Your task to perform on an android device: Open the map Image 0: 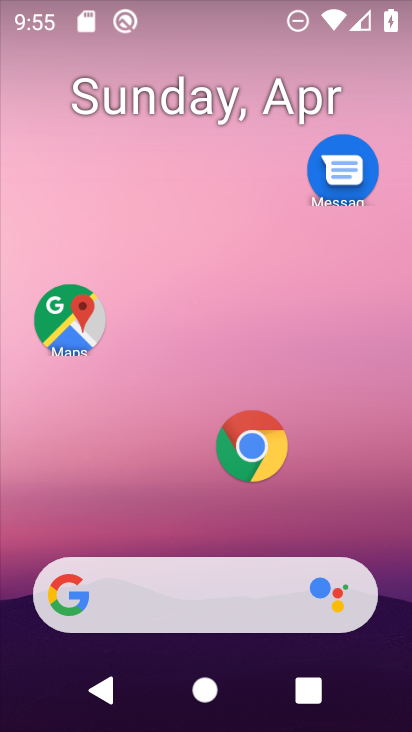
Step 0: click (214, 363)
Your task to perform on an android device: Open the map Image 1: 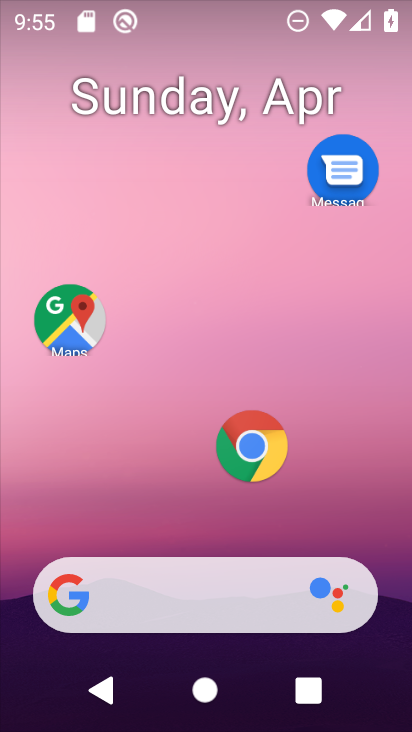
Step 1: drag from (187, 513) to (189, 104)
Your task to perform on an android device: Open the map Image 2: 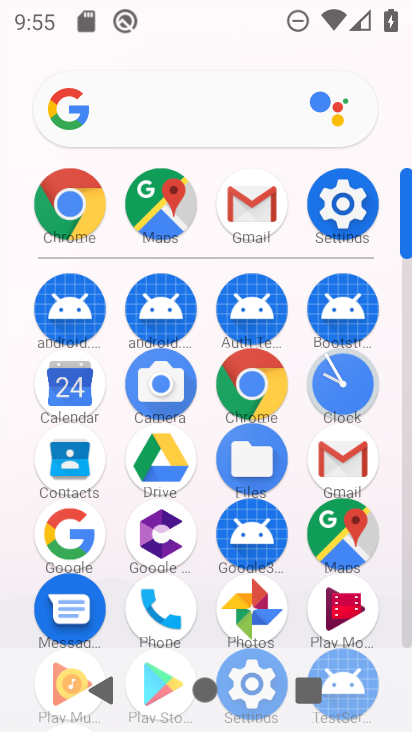
Step 2: click (343, 537)
Your task to perform on an android device: Open the map Image 3: 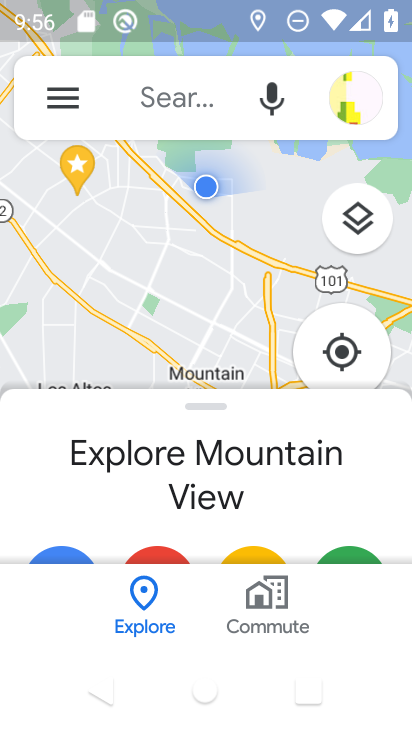
Step 3: task complete